Your task to perform on an android device: Go to CNN.com Image 0: 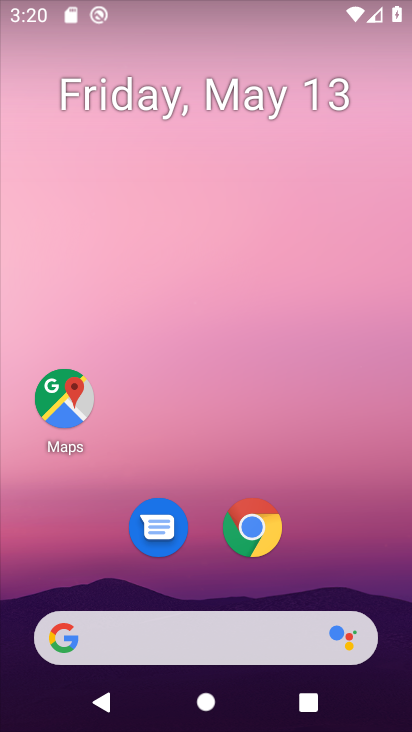
Step 0: press home button
Your task to perform on an android device: Go to CNN.com Image 1: 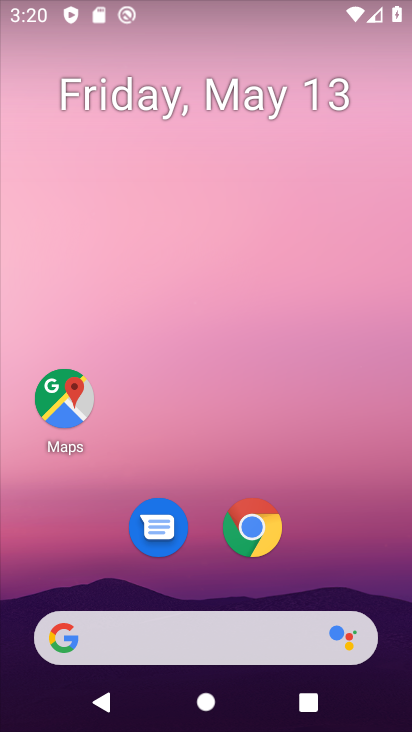
Step 1: click (248, 521)
Your task to perform on an android device: Go to CNN.com Image 2: 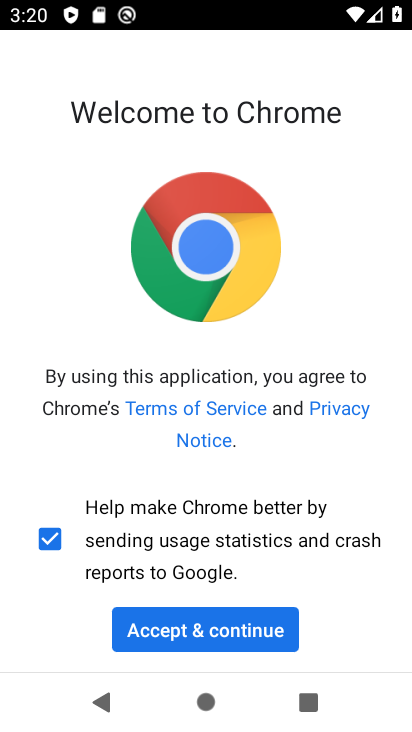
Step 2: click (189, 630)
Your task to perform on an android device: Go to CNN.com Image 3: 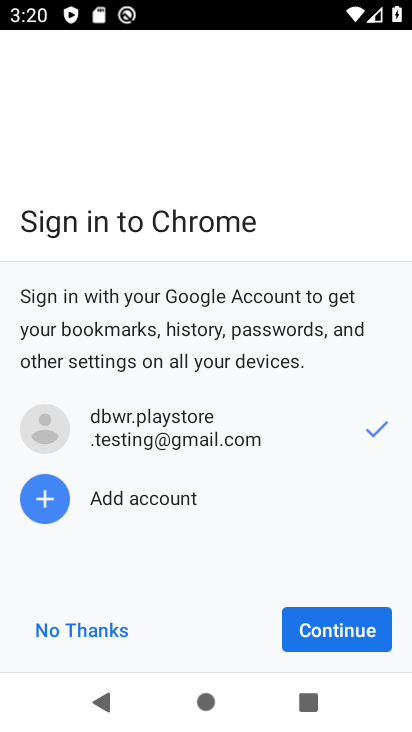
Step 3: click (349, 619)
Your task to perform on an android device: Go to CNN.com Image 4: 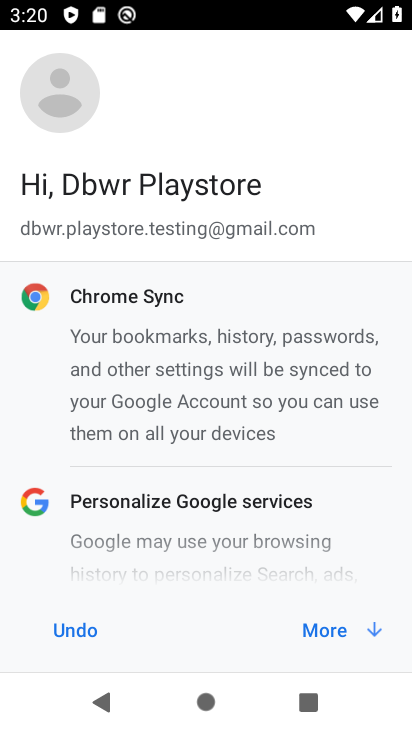
Step 4: click (326, 628)
Your task to perform on an android device: Go to CNN.com Image 5: 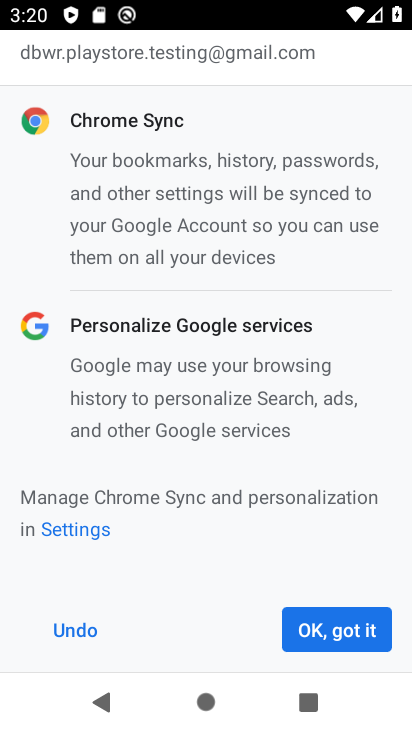
Step 5: click (331, 627)
Your task to perform on an android device: Go to CNN.com Image 6: 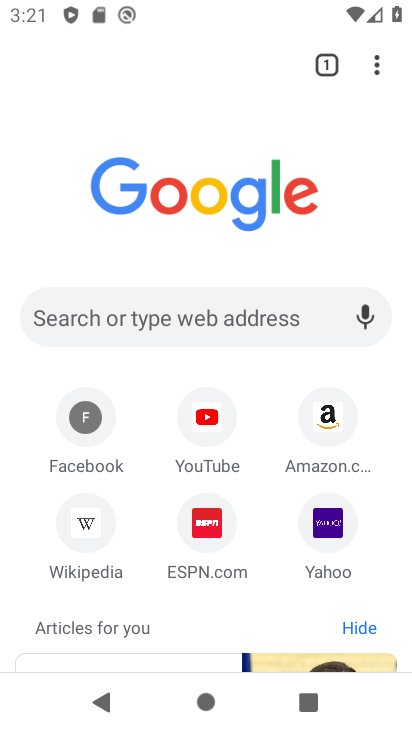
Step 6: drag from (177, 622) to (191, 350)
Your task to perform on an android device: Go to CNN.com Image 7: 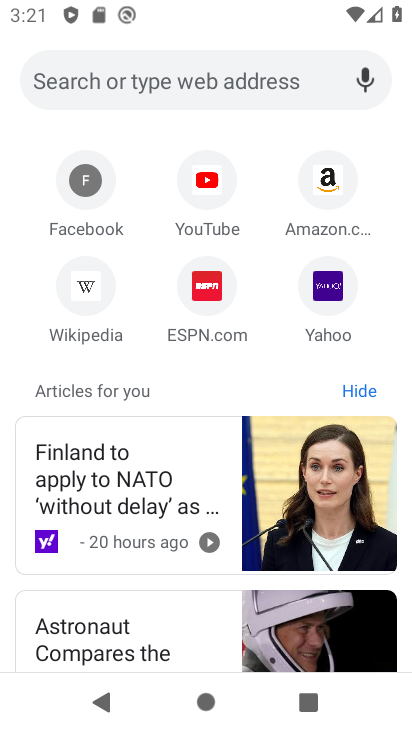
Step 7: click (175, 86)
Your task to perform on an android device: Go to CNN.com Image 8: 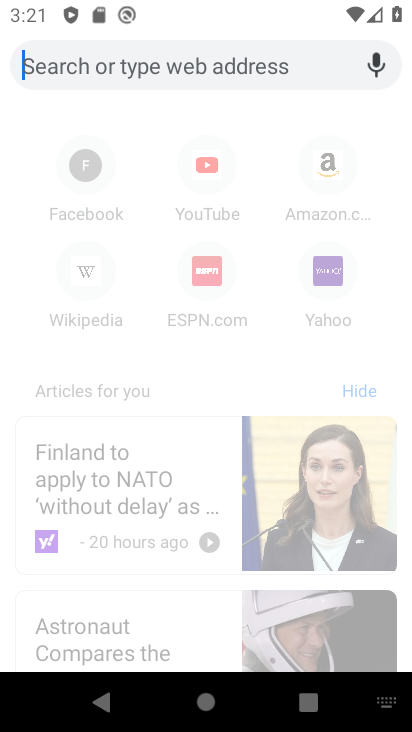
Step 8: type "cnn.com"
Your task to perform on an android device: Go to CNN.com Image 9: 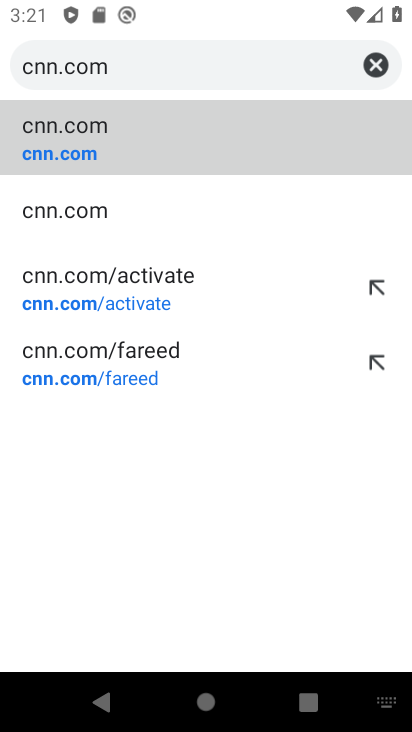
Step 9: click (89, 152)
Your task to perform on an android device: Go to CNN.com Image 10: 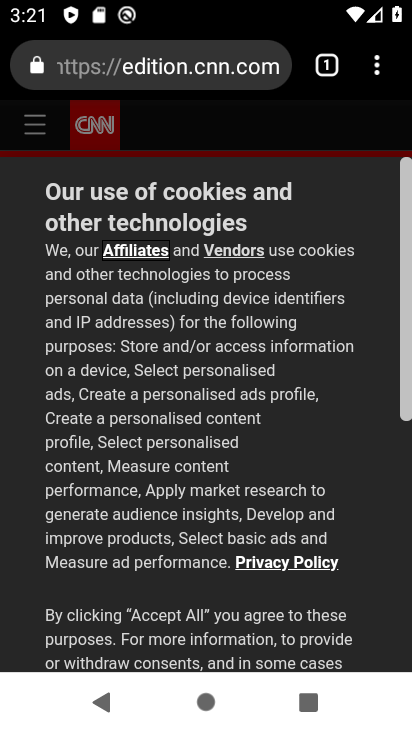
Step 10: drag from (169, 606) to (163, 200)
Your task to perform on an android device: Go to CNN.com Image 11: 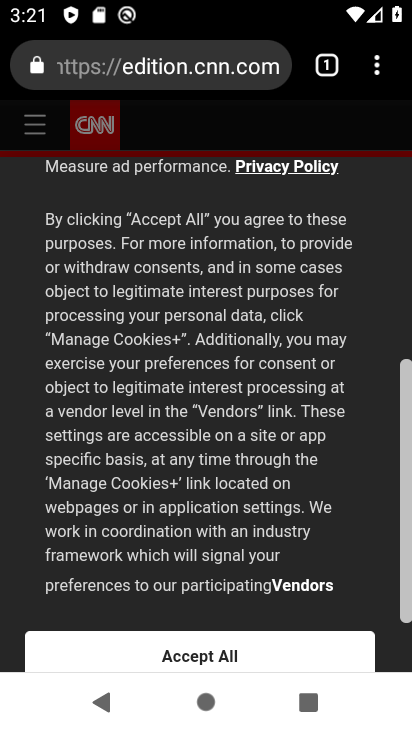
Step 11: click (219, 644)
Your task to perform on an android device: Go to CNN.com Image 12: 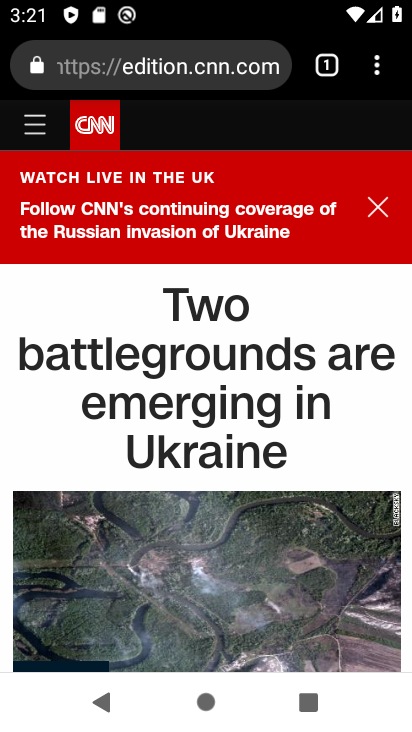
Step 12: task complete